Your task to perform on an android device: Go to Wikipedia Image 0: 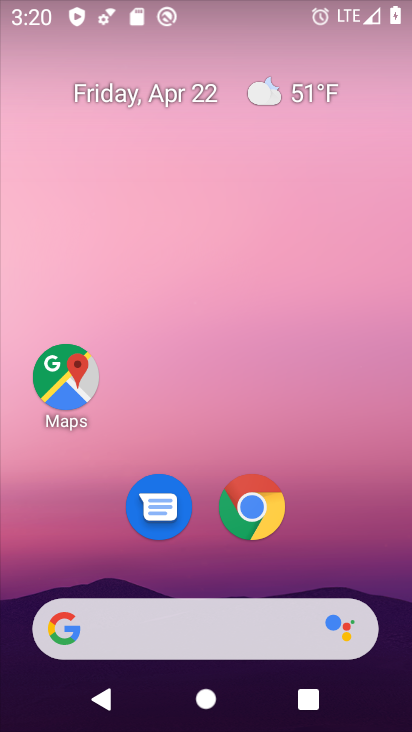
Step 0: drag from (178, 561) to (266, 13)
Your task to perform on an android device: Go to Wikipedia Image 1: 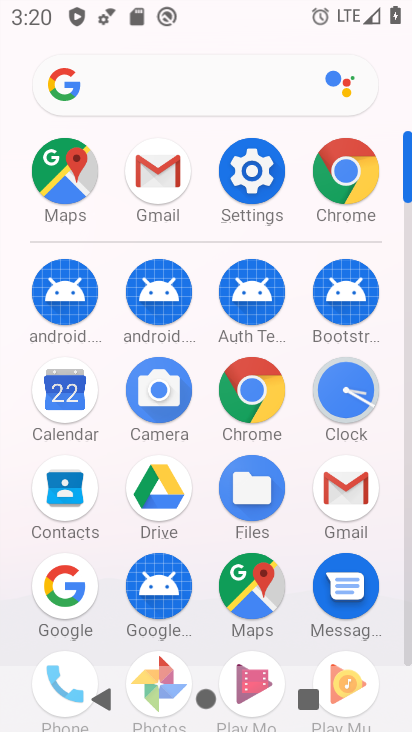
Step 1: click (257, 396)
Your task to perform on an android device: Go to Wikipedia Image 2: 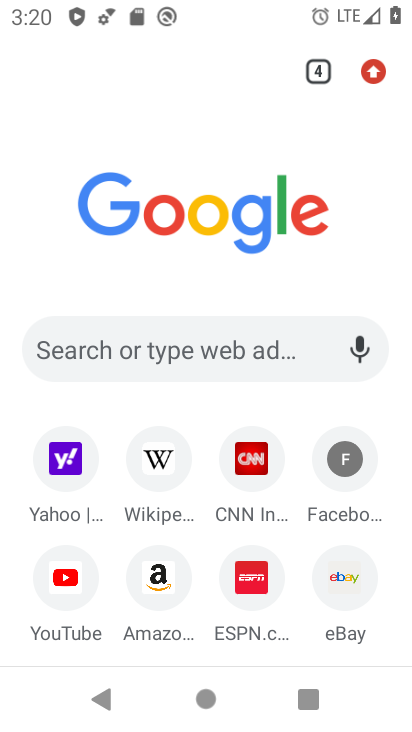
Step 2: click (175, 442)
Your task to perform on an android device: Go to Wikipedia Image 3: 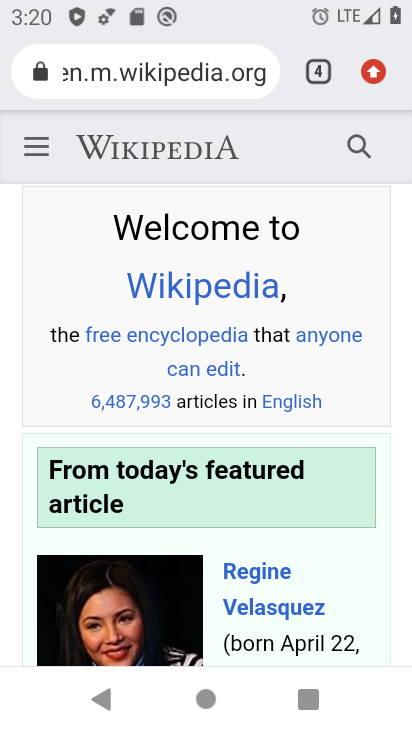
Step 3: task complete